Your task to perform on an android device: Open calendar and show me the first week of next month Image 0: 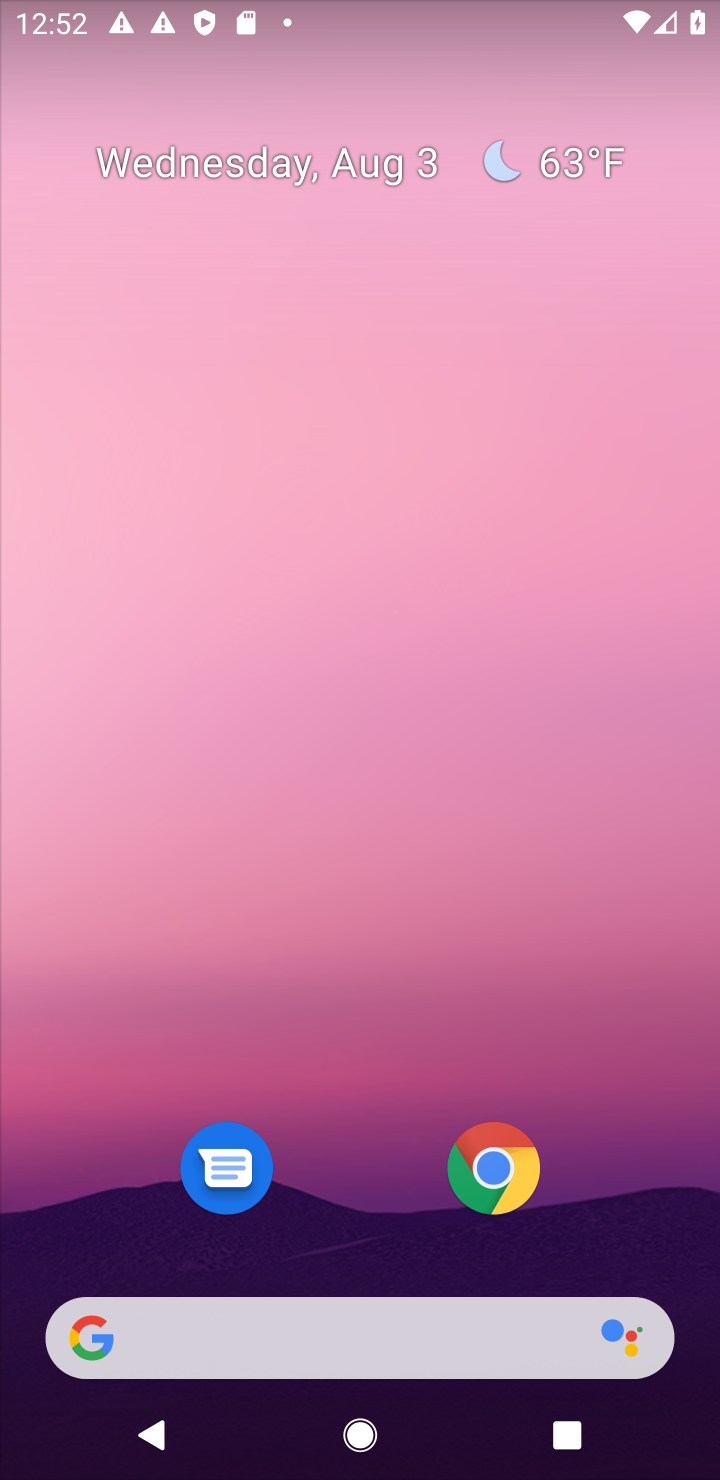
Step 0: drag from (667, 1247) to (564, 375)
Your task to perform on an android device: Open calendar and show me the first week of next month Image 1: 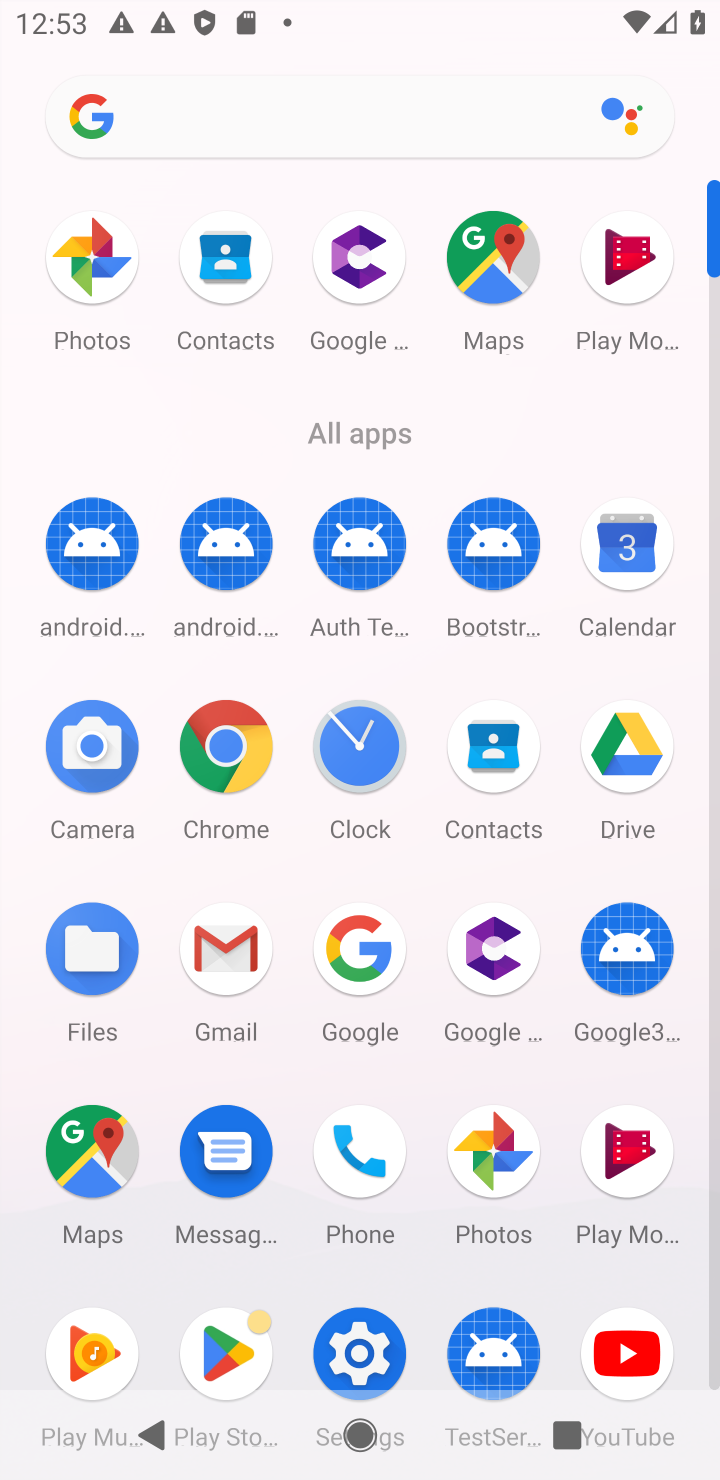
Step 1: click (623, 551)
Your task to perform on an android device: Open calendar and show me the first week of next month Image 2: 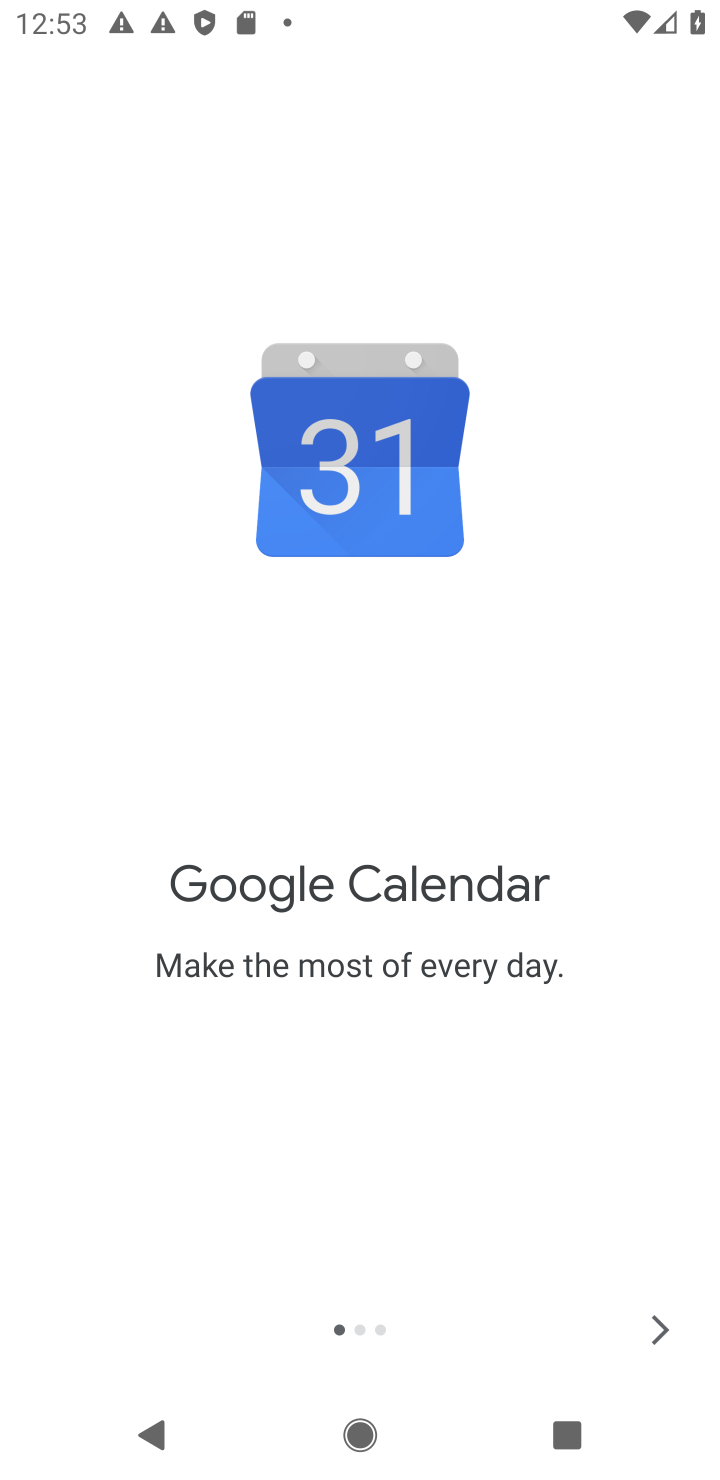
Step 2: click (651, 1323)
Your task to perform on an android device: Open calendar and show me the first week of next month Image 3: 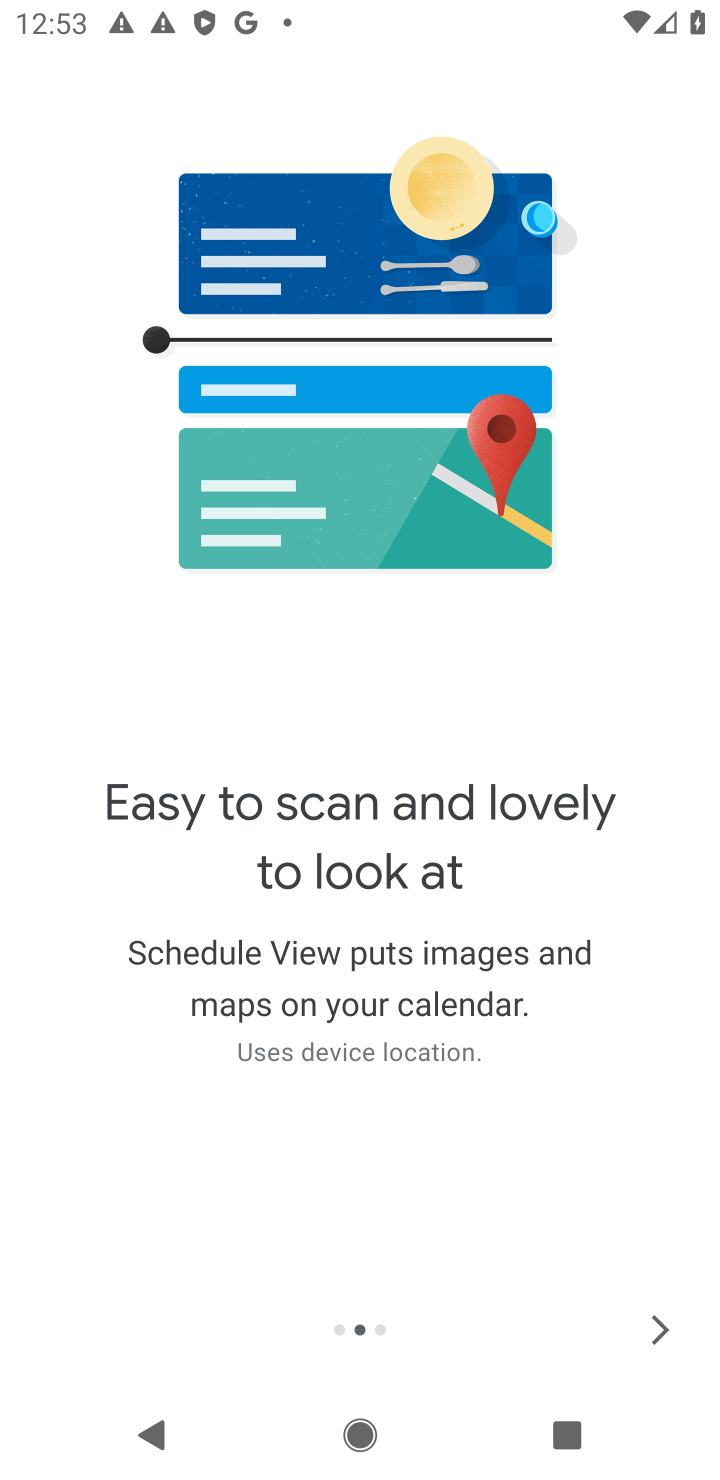
Step 3: click (651, 1323)
Your task to perform on an android device: Open calendar and show me the first week of next month Image 4: 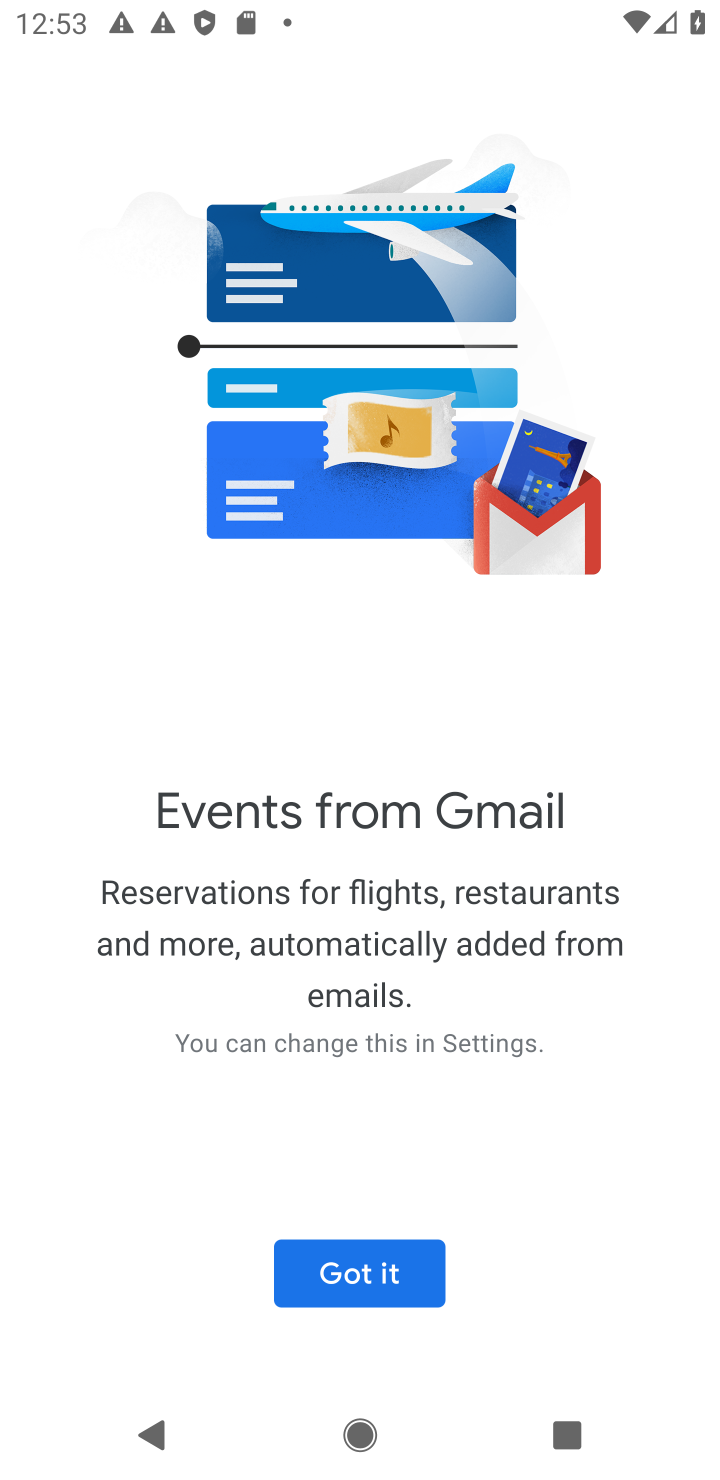
Step 4: click (340, 1279)
Your task to perform on an android device: Open calendar and show me the first week of next month Image 5: 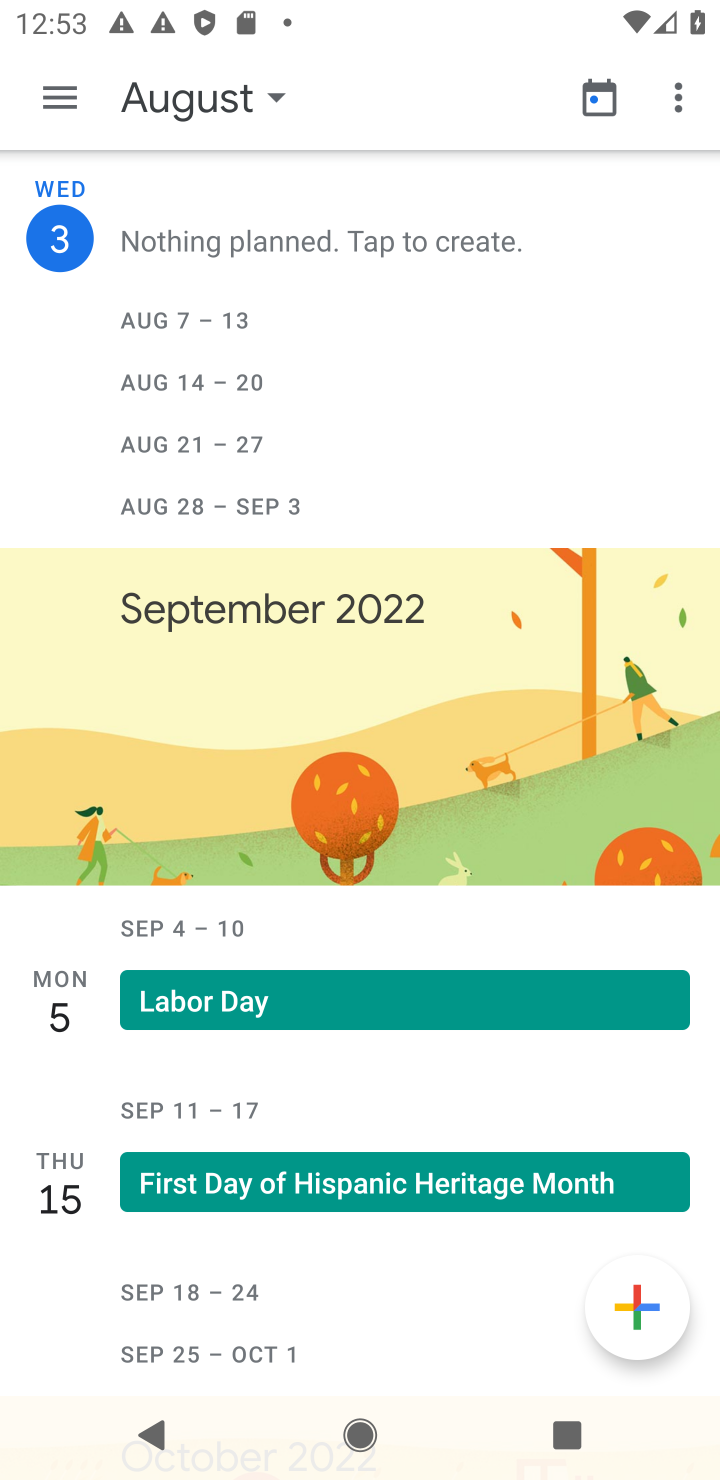
Step 5: click (63, 97)
Your task to perform on an android device: Open calendar and show me the first week of next month Image 6: 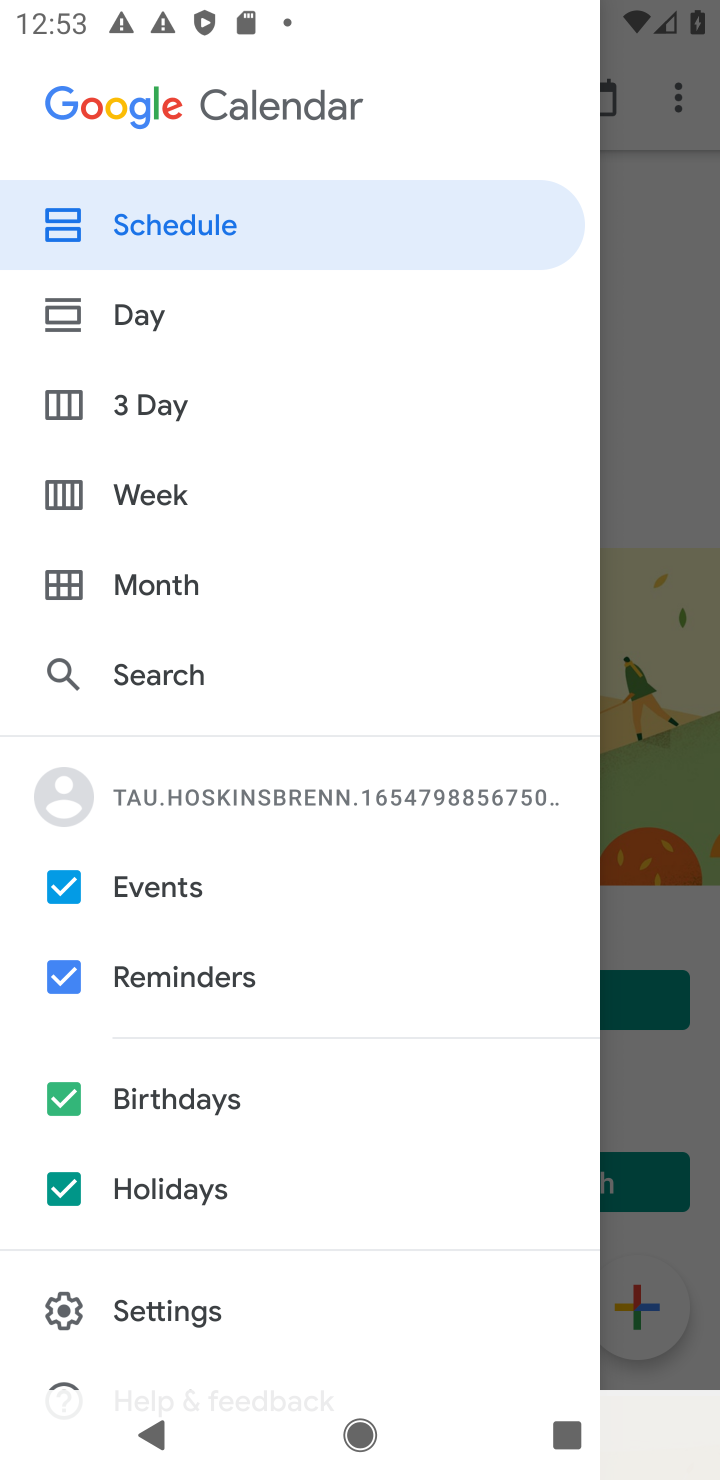
Step 6: click (149, 502)
Your task to perform on an android device: Open calendar and show me the first week of next month Image 7: 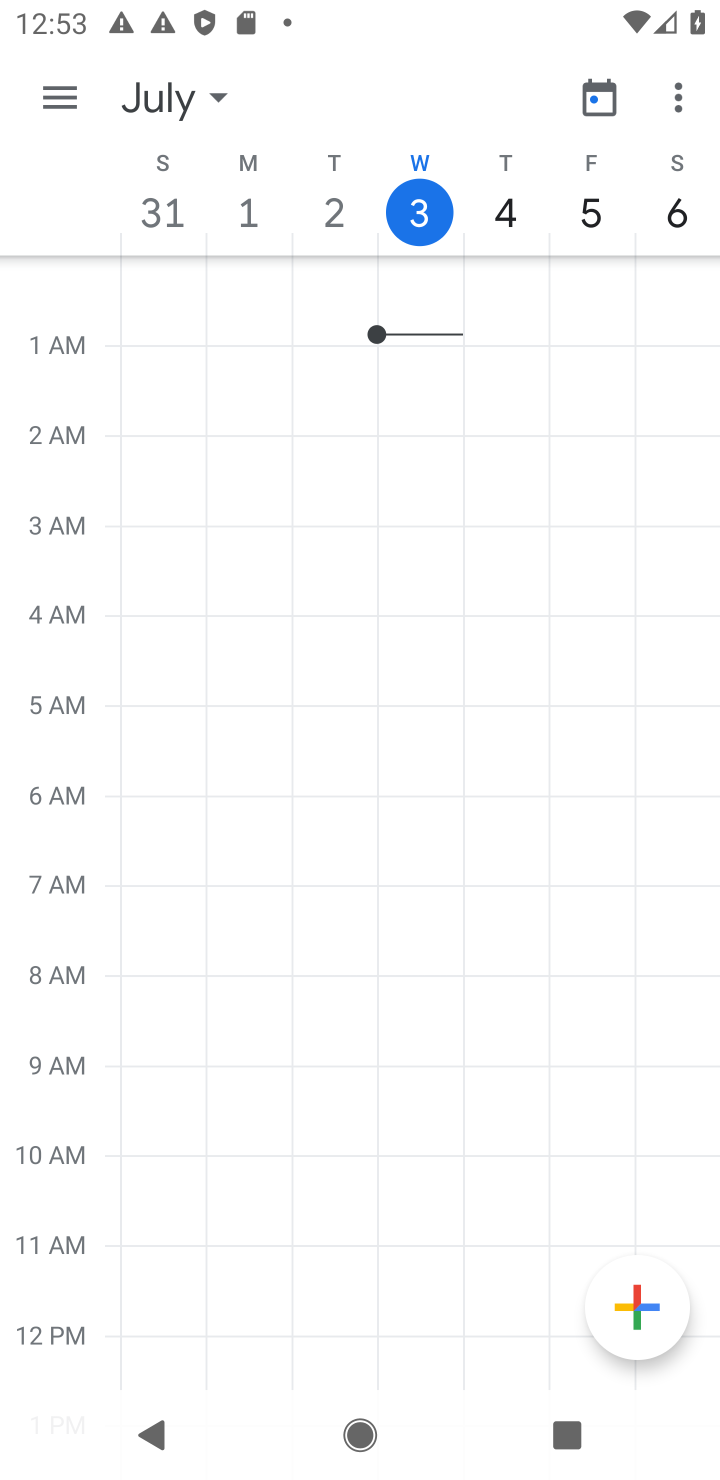
Step 7: click (216, 95)
Your task to perform on an android device: Open calendar and show me the first week of next month Image 8: 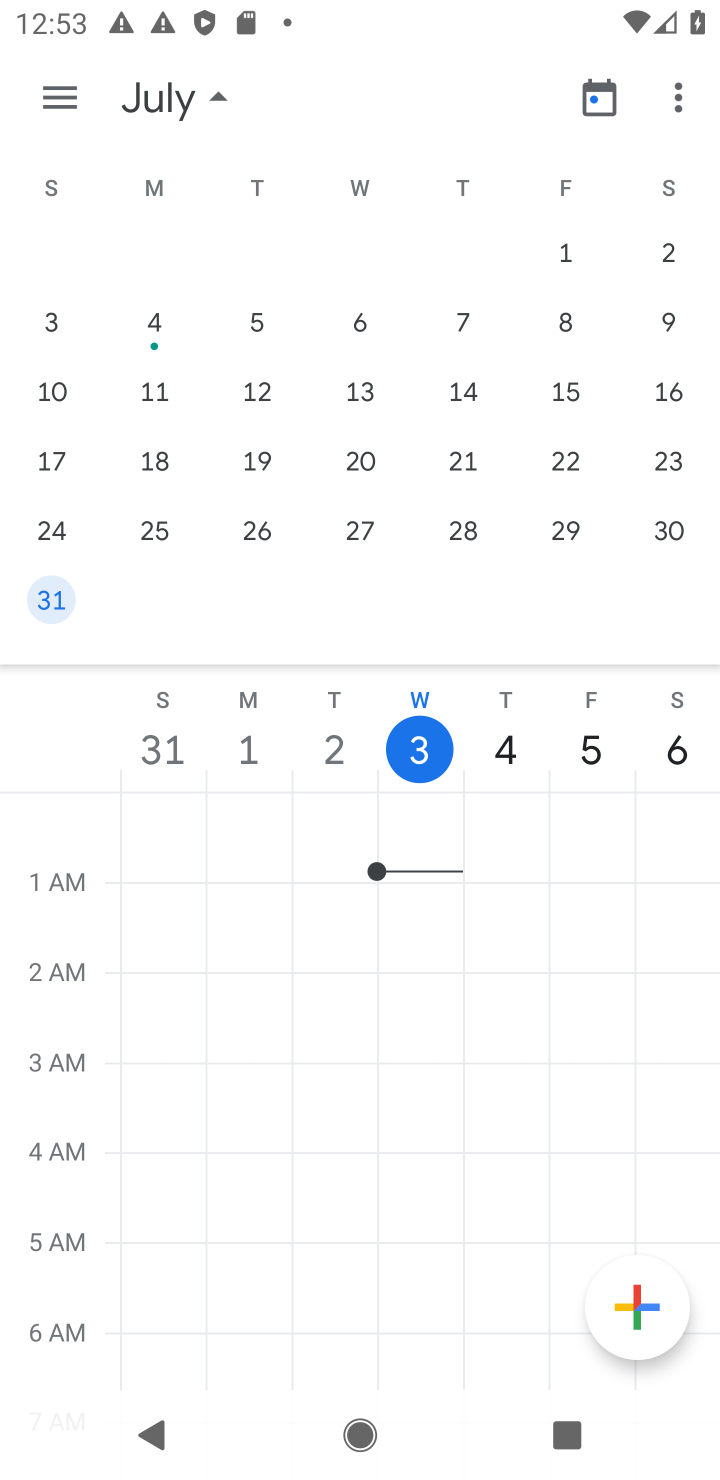
Step 8: drag from (672, 468) to (196, 412)
Your task to perform on an android device: Open calendar and show me the first week of next month Image 9: 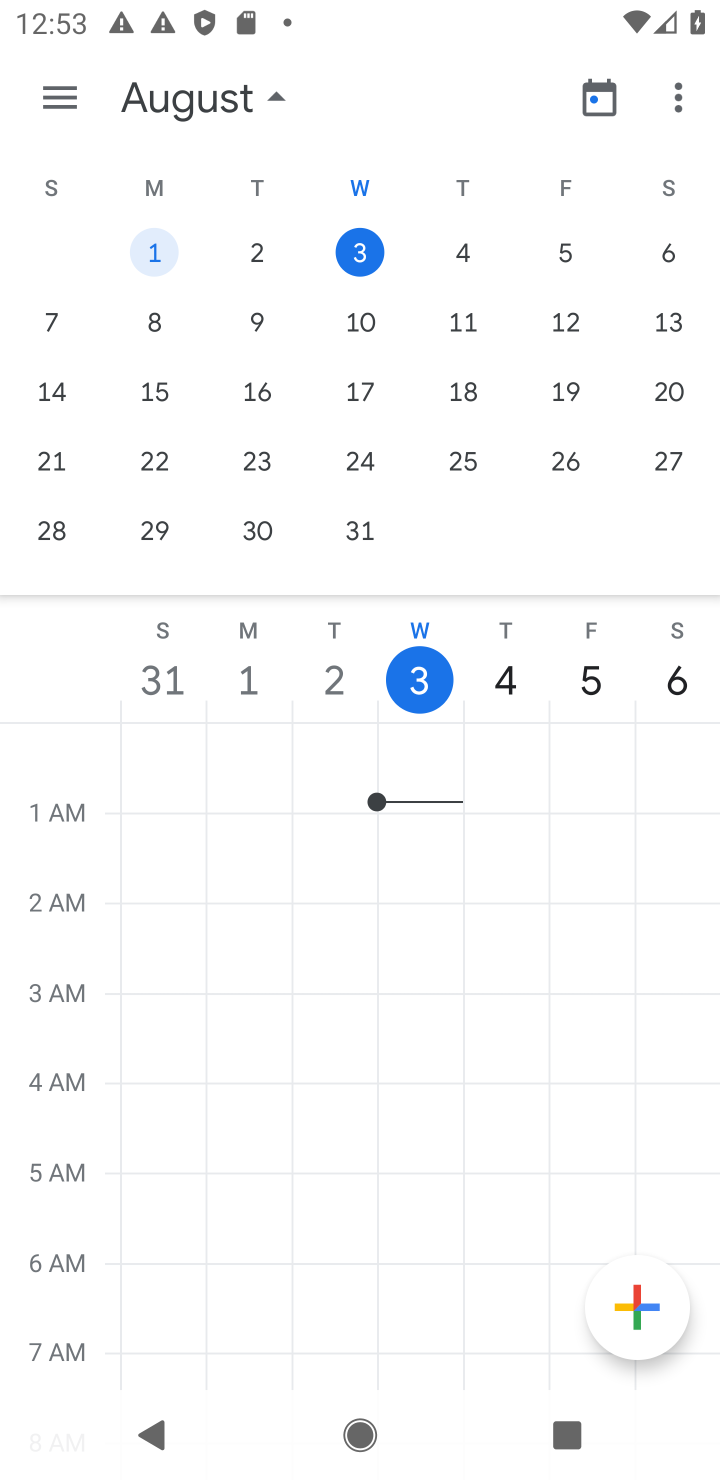
Step 9: click (49, 323)
Your task to perform on an android device: Open calendar and show me the first week of next month Image 10: 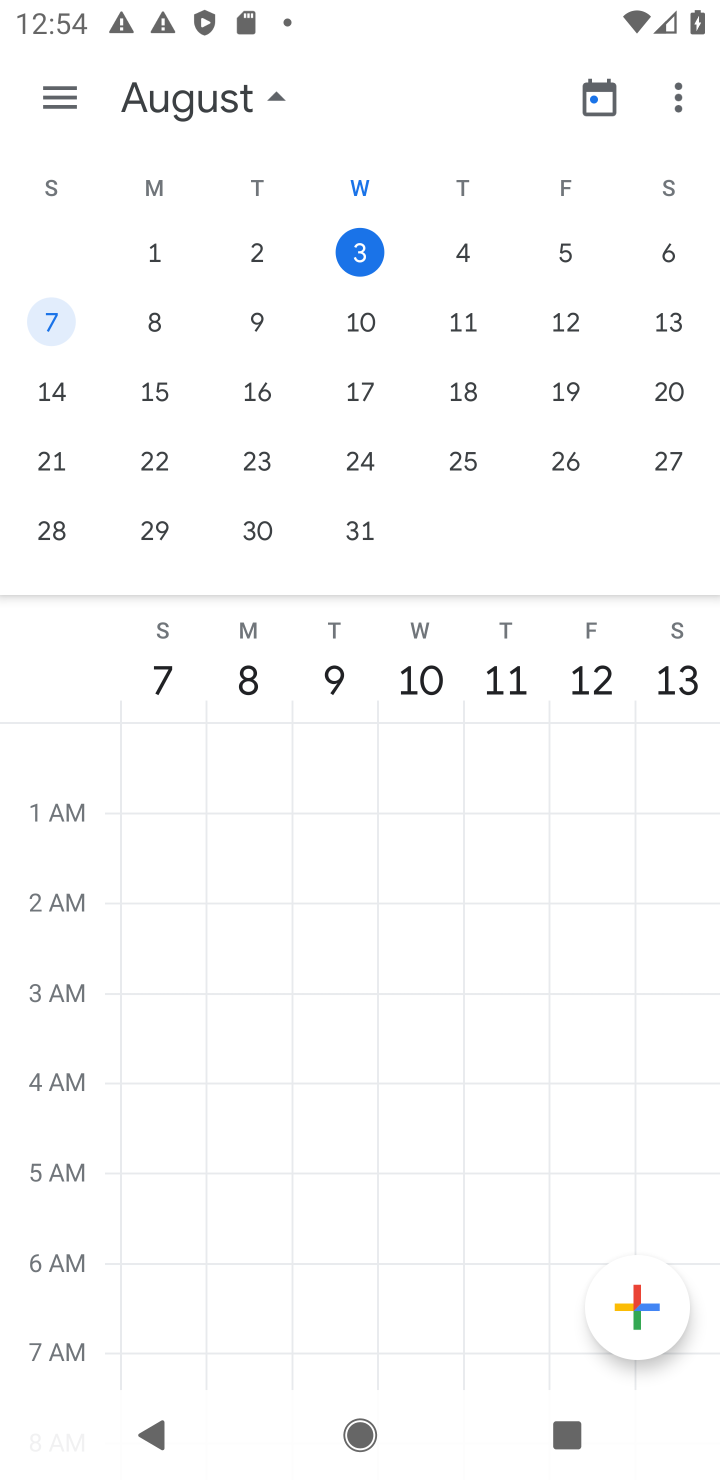
Step 10: task complete